Your task to perform on an android device: Open Chrome and go to the settings page Image 0: 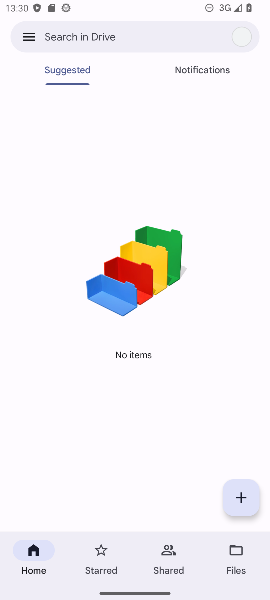
Step 0: press home button
Your task to perform on an android device: Open Chrome and go to the settings page Image 1: 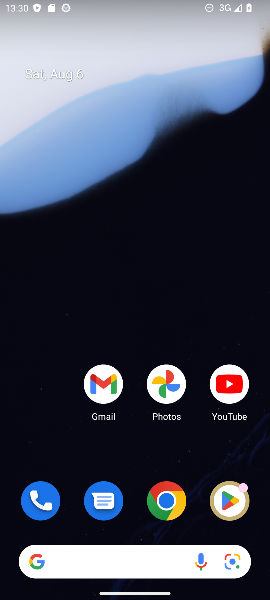
Step 1: click (169, 508)
Your task to perform on an android device: Open Chrome and go to the settings page Image 2: 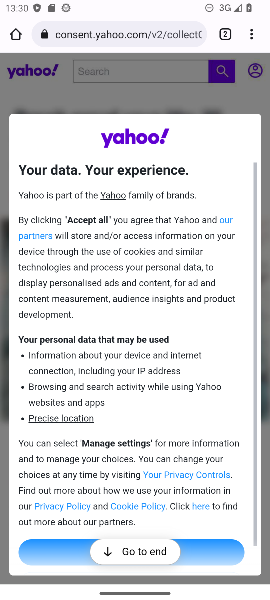
Step 2: click (251, 25)
Your task to perform on an android device: Open Chrome and go to the settings page Image 3: 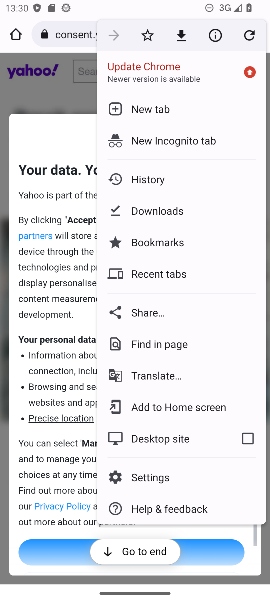
Step 3: click (145, 475)
Your task to perform on an android device: Open Chrome and go to the settings page Image 4: 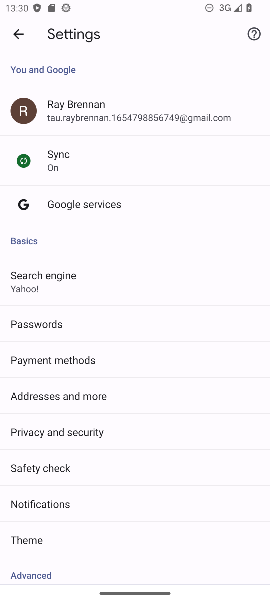
Step 4: task complete